Your task to perform on an android device: Show the shopping cart on costco.com. Add razer thresher to the cart on costco.com Image 0: 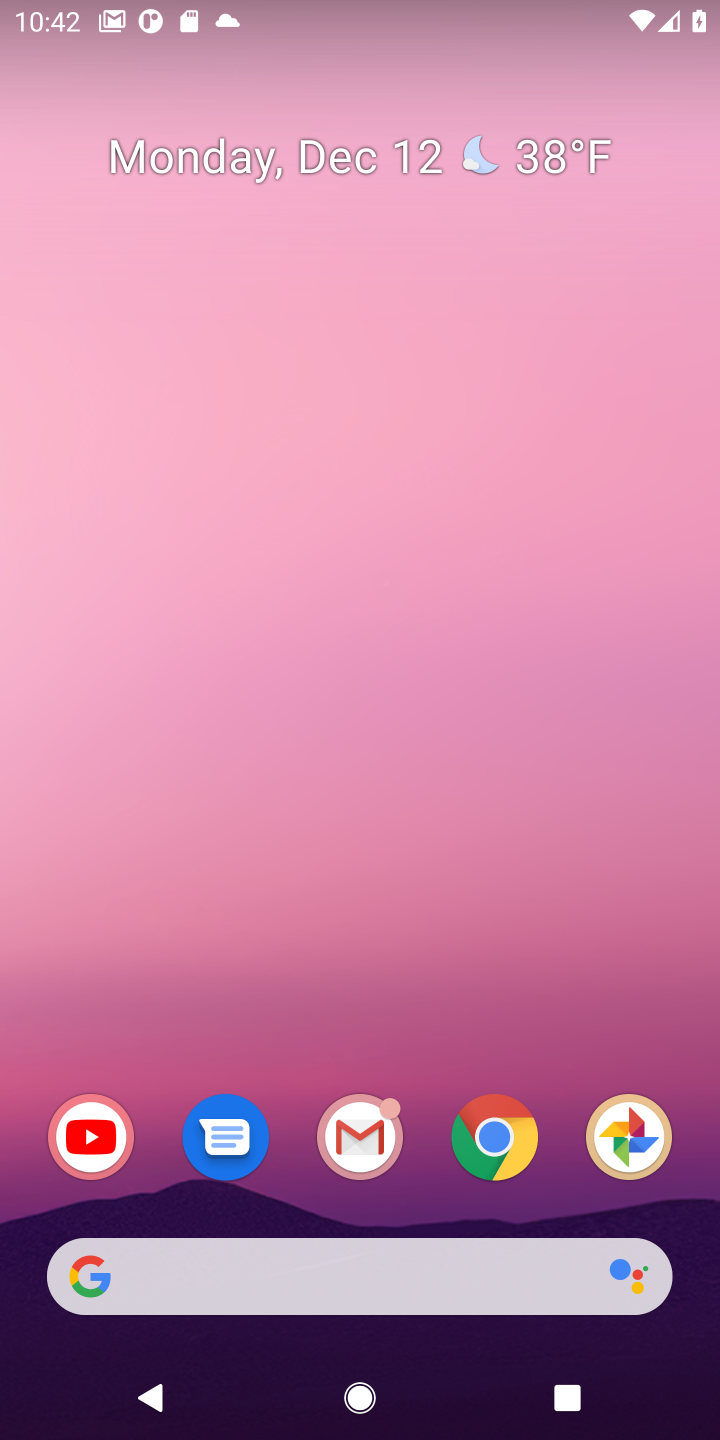
Step 0: click (238, 1262)
Your task to perform on an android device: Show the shopping cart on costco.com. Add razer thresher to the cart on costco.com Image 1: 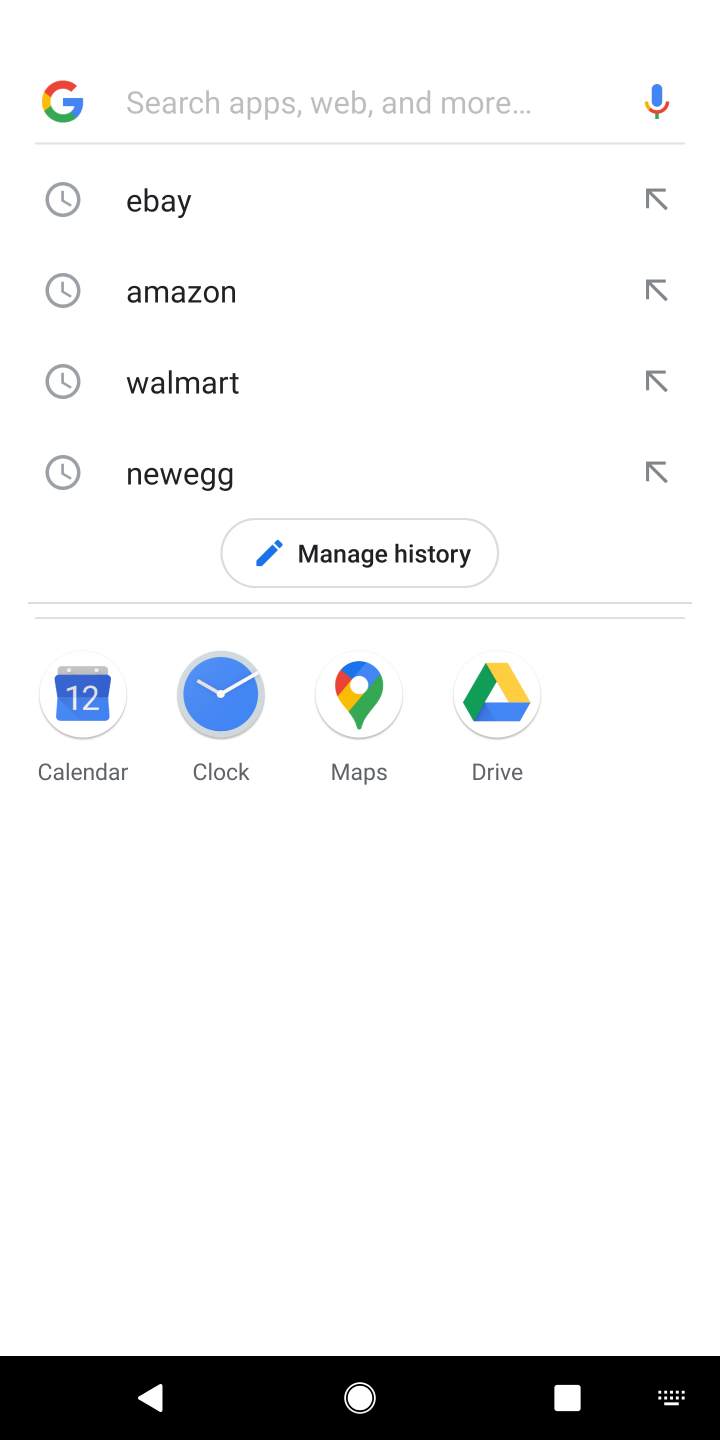
Step 1: click (116, 285)
Your task to perform on an android device: Show the shopping cart on costco.com. Add razer thresher to the cart on costco.com Image 2: 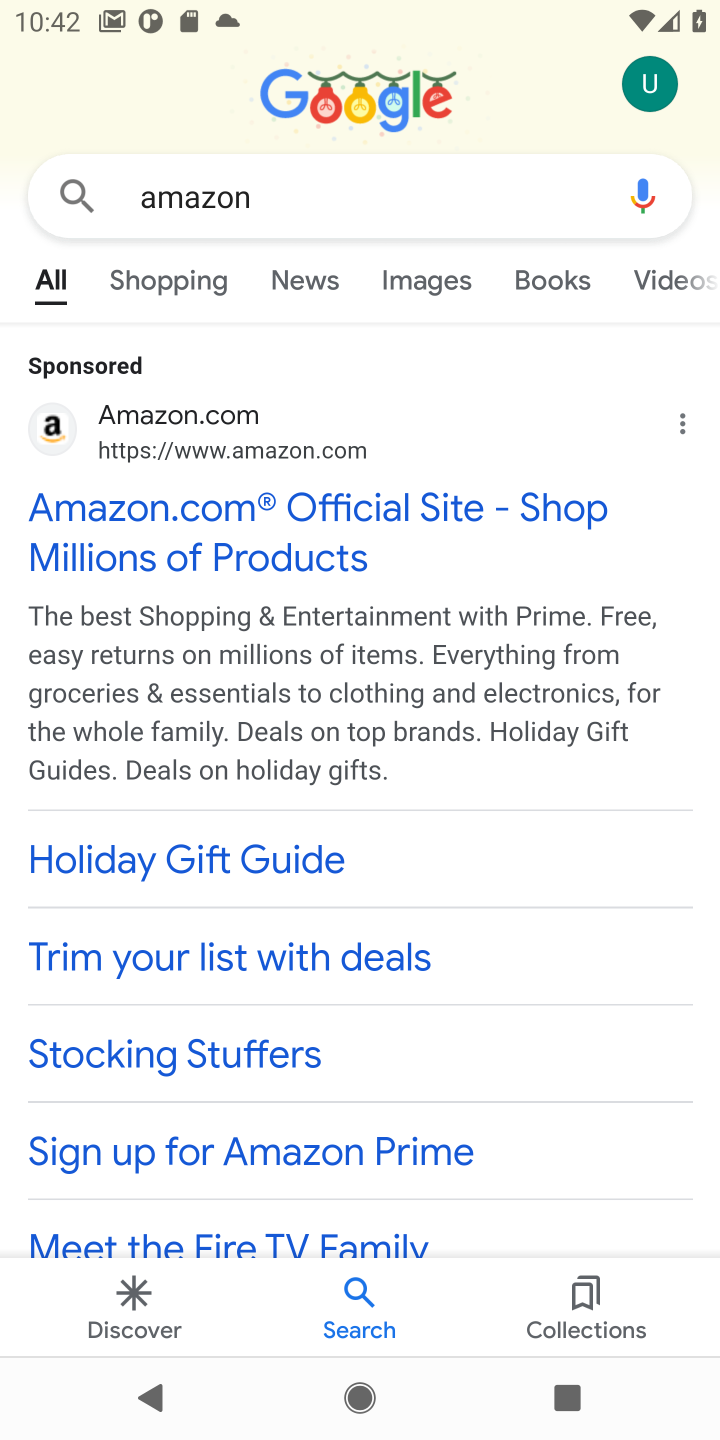
Step 2: click (211, 505)
Your task to perform on an android device: Show the shopping cart on costco.com. Add razer thresher to the cart on costco.com Image 3: 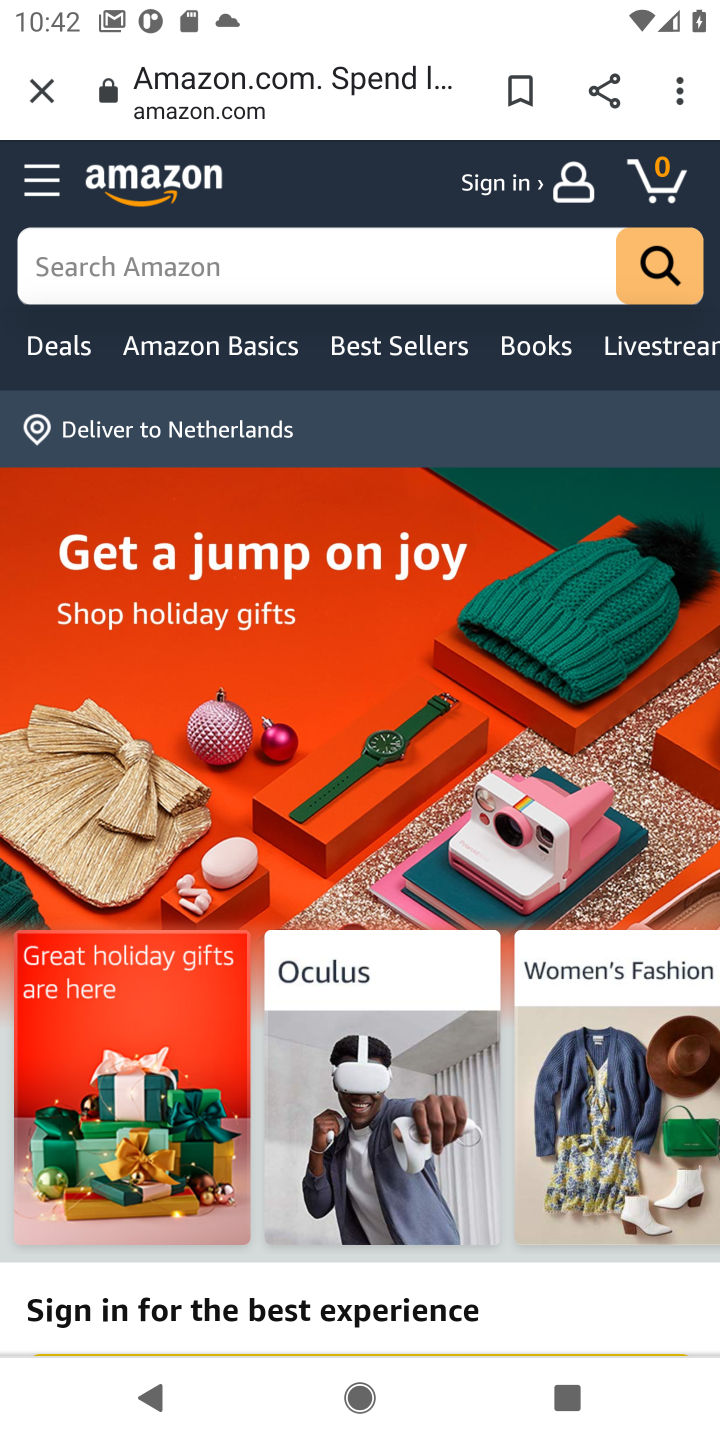
Step 3: click (287, 251)
Your task to perform on an android device: Show the shopping cart on costco.com. Add razer thresher to the cart on costco.com Image 4: 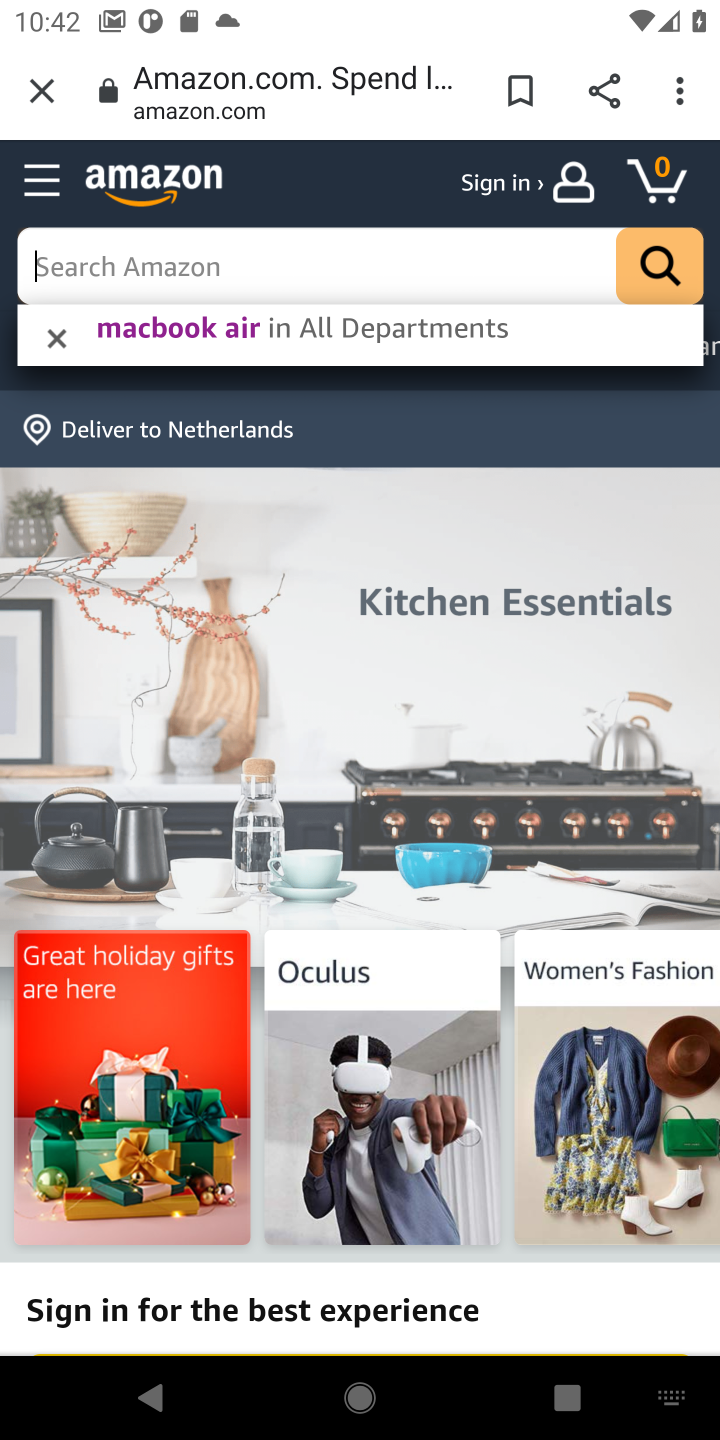
Step 4: type "razer threshaer"
Your task to perform on an android device: Show the shopping cart on costco.com. Add razer thresher to the cart on costco.com Image 5: 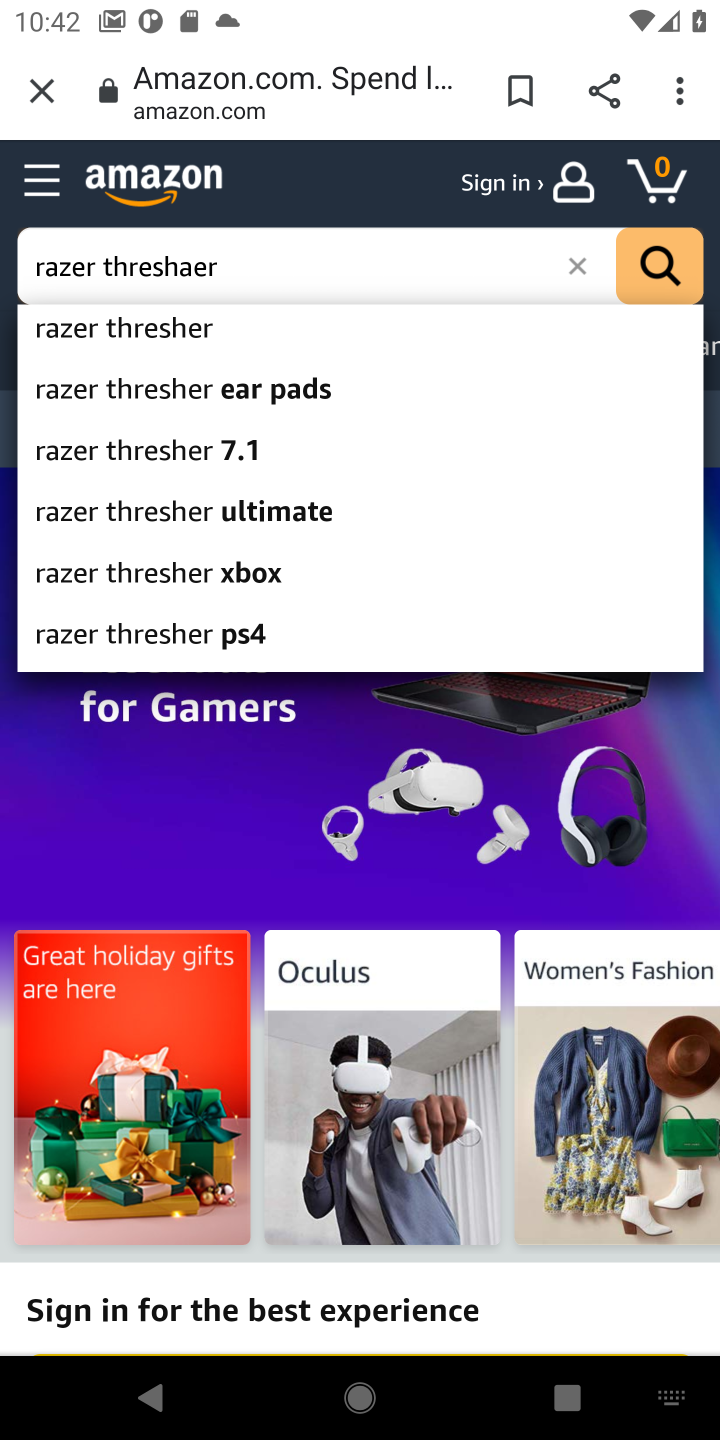
Step 5: click (153, 355)
Your task to perform on an android device: Show the shopping cart on costco.com. Add razer thresher to the cart on costco.com Image 6: 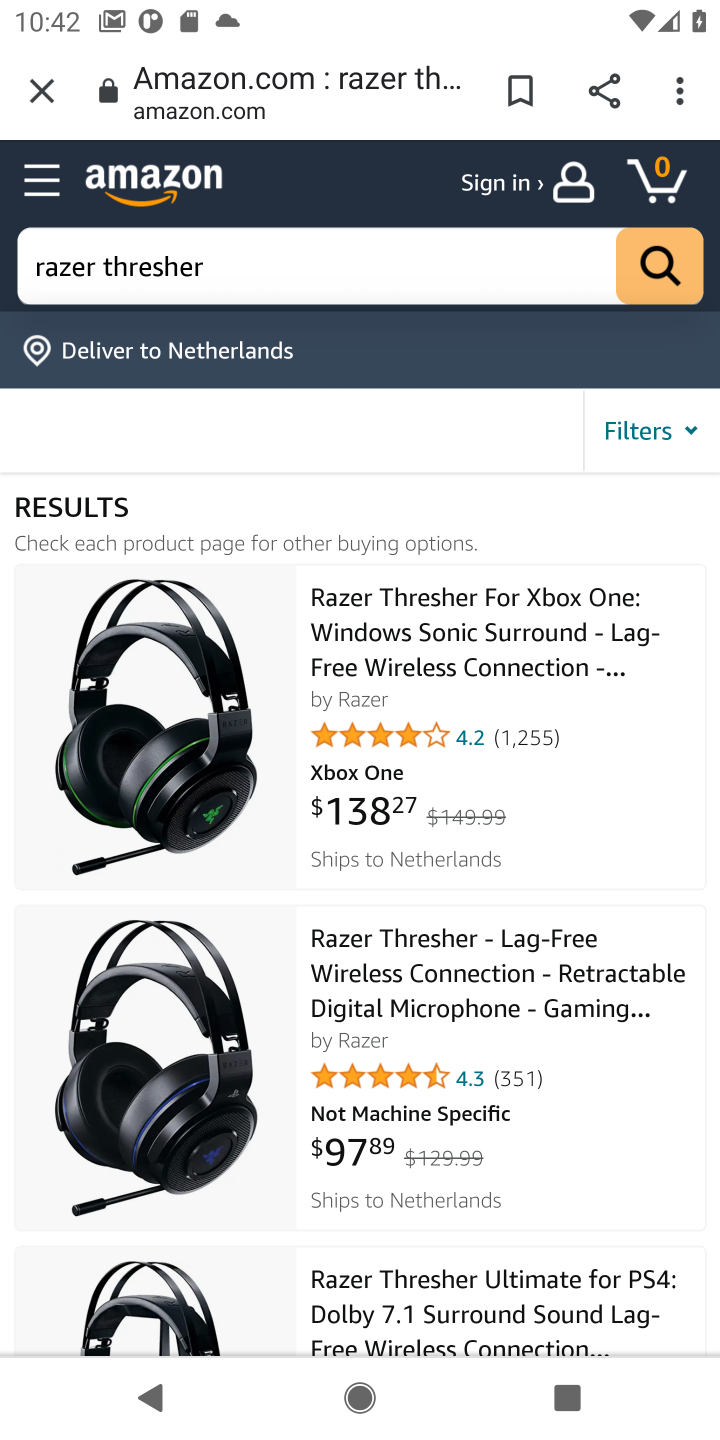
Step 6: click (402, 587)
Your task to perform on an android device: Show the shopping cart on costco.com. Add razer thresher to the cart on costco.com Image 7: 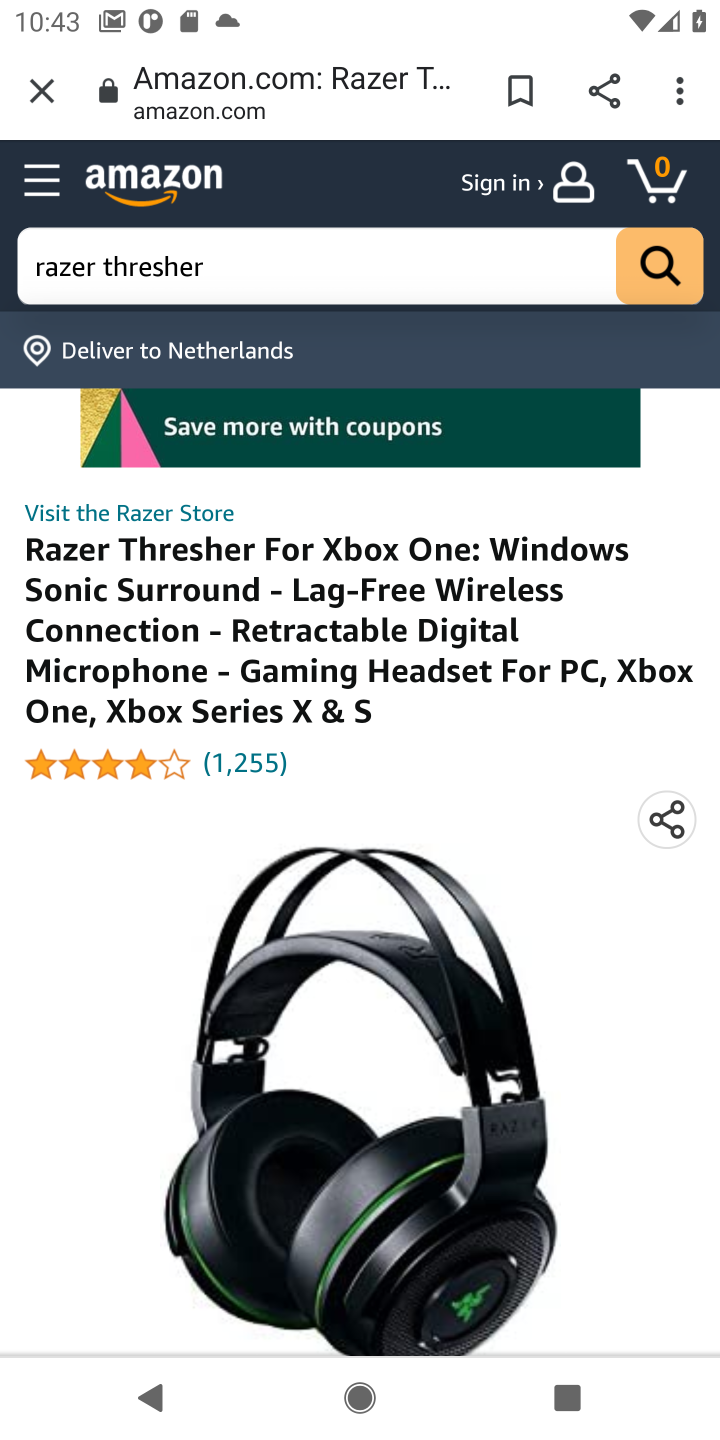
Step 7: drag from (312, 1053) to (395, 377)
Your task to perform on an android device: Show the shopping cart on costco.com. Add razer thresher to the cart on costco.com Image 8: 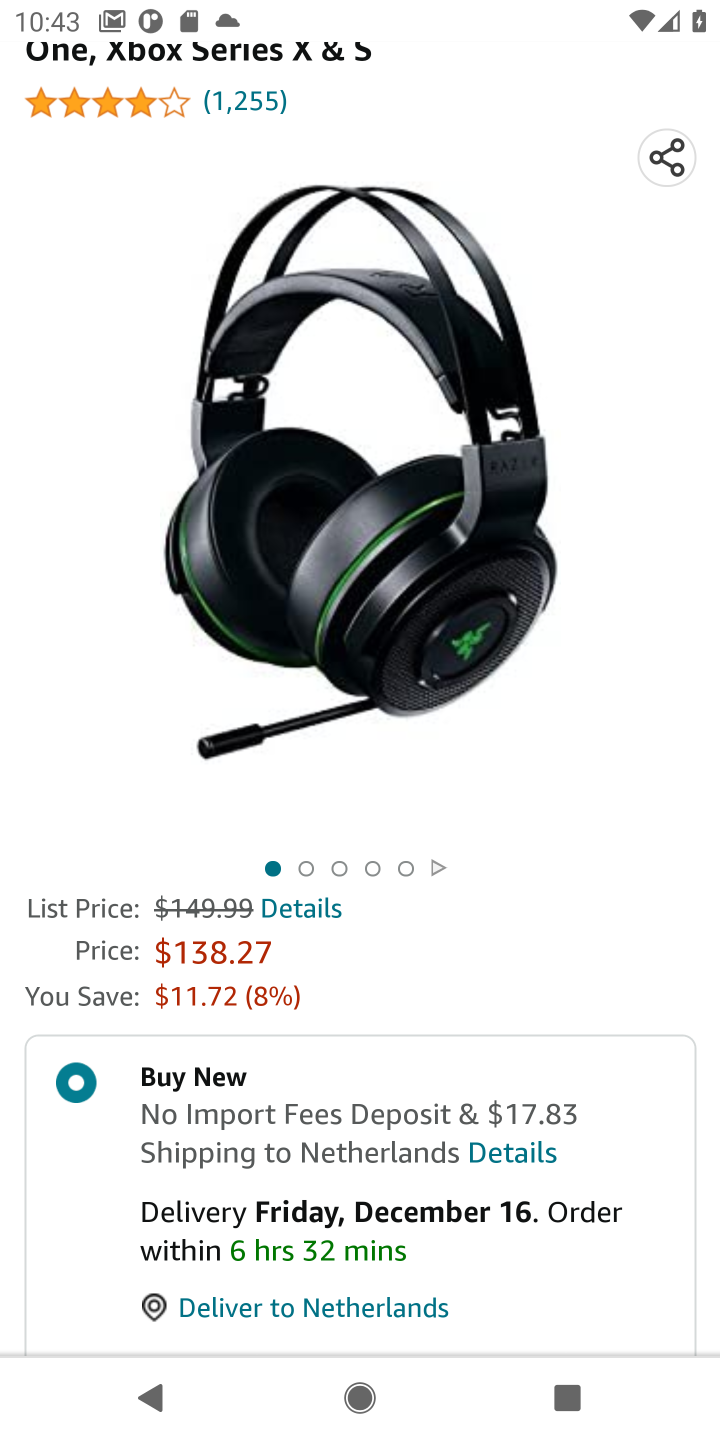
Step 8: drag from (380, 912) to (415, 299)
Your task to perform on an android device: Show the shopping cart on costco.com. Add razer thresher to the cart on costco.com Image 9: 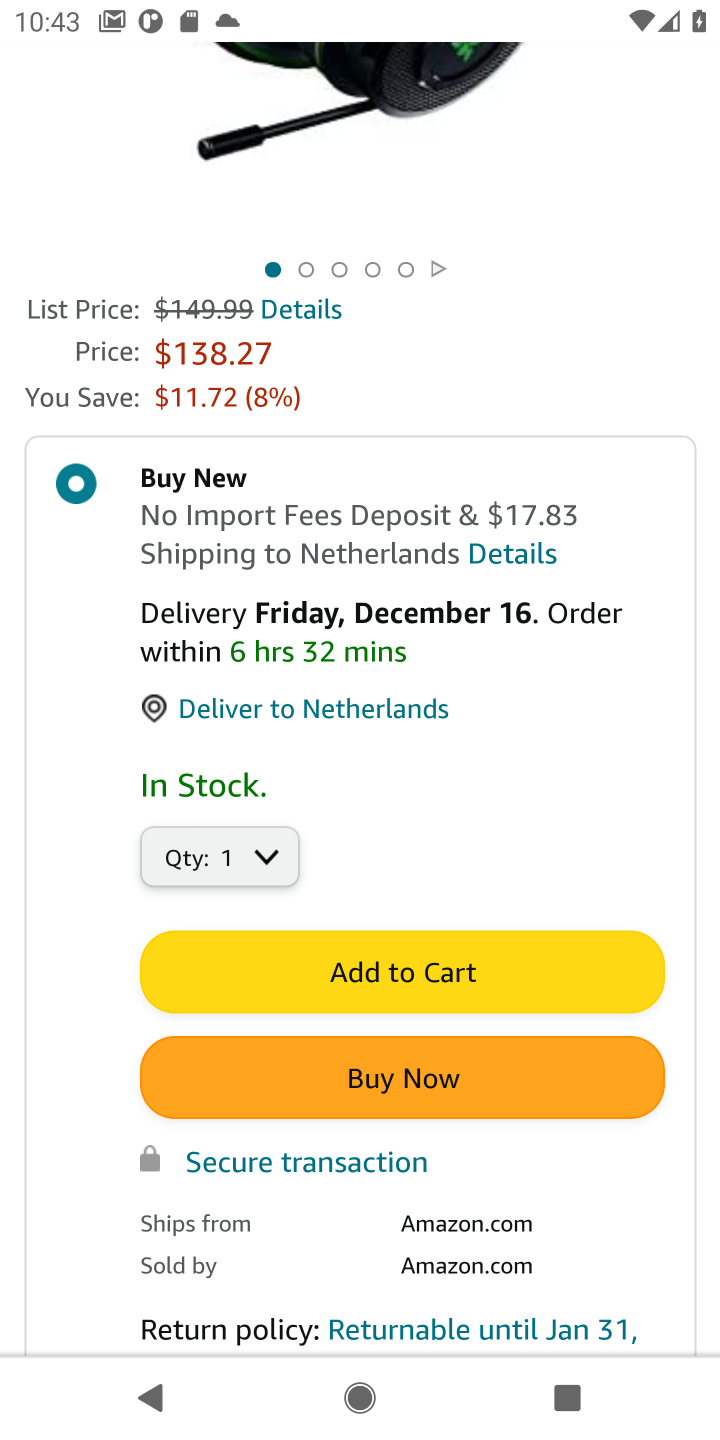
Step 9: click (397, 962)
Your task to perform on an android device: Show the shopping cart on costco.com. Add razer thresher to the cart on costco.com Image 10: 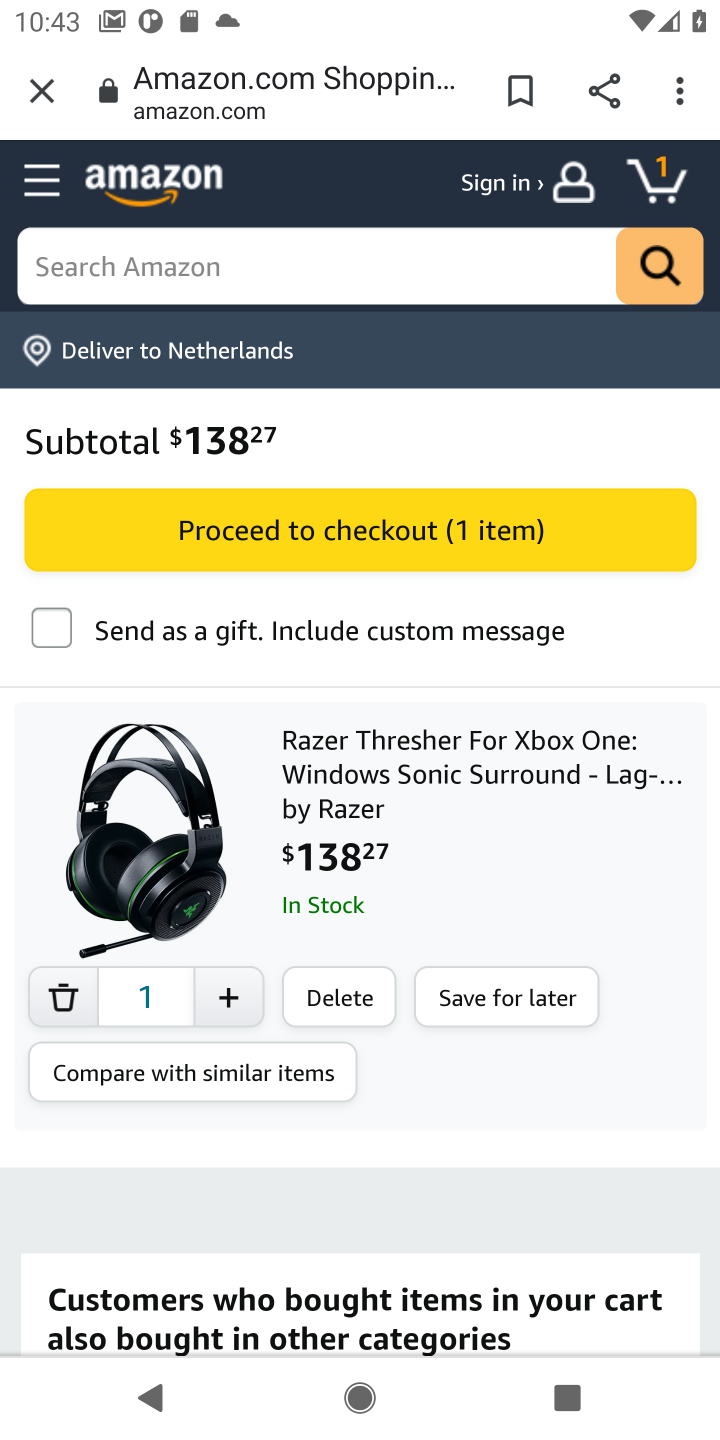
Step 10: task complete